Your task to perform on an android device: open wifi settings Image 0: 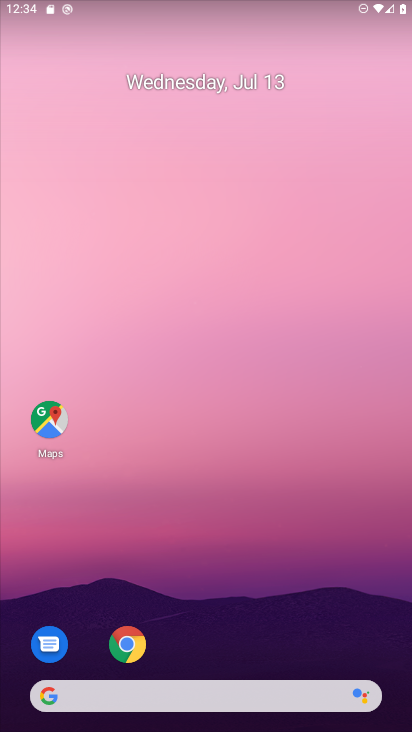
Step 0: drag from (344, 728) to (204, 261)
Your task to perform on an android device: open wifi settings Image 1: 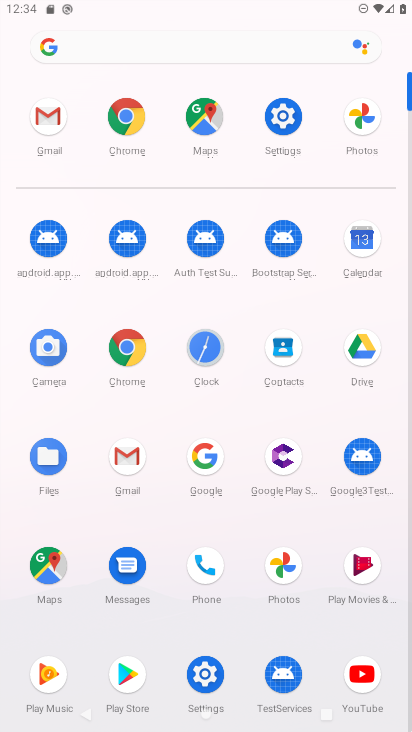
Step 1: click (274, 123)
Your task to perform on an android device: open wifi settings Image 2: 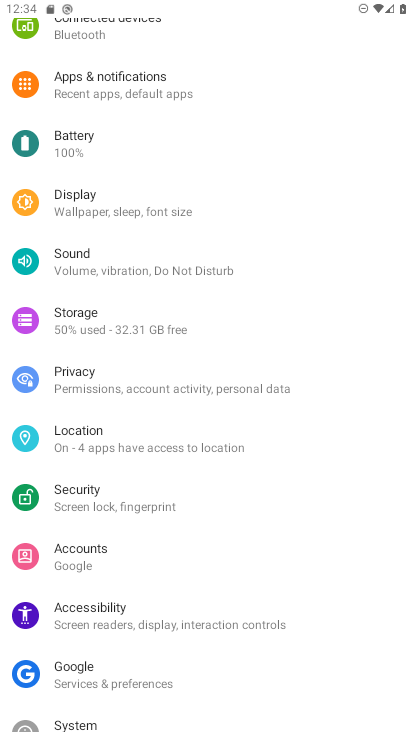
Step 2: drag from (254, 243) to (306, 731)
Your task to perform on an android device: open wifi settings Image 3: 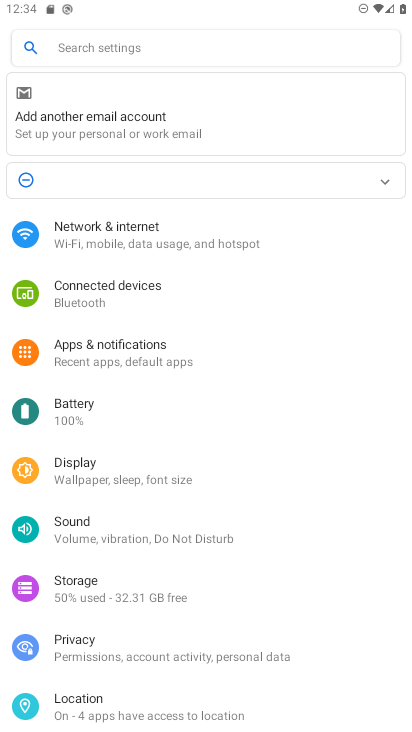
Step 3: click (120, 257)
Your task to perform on an android device: open wifi settings Image 4: 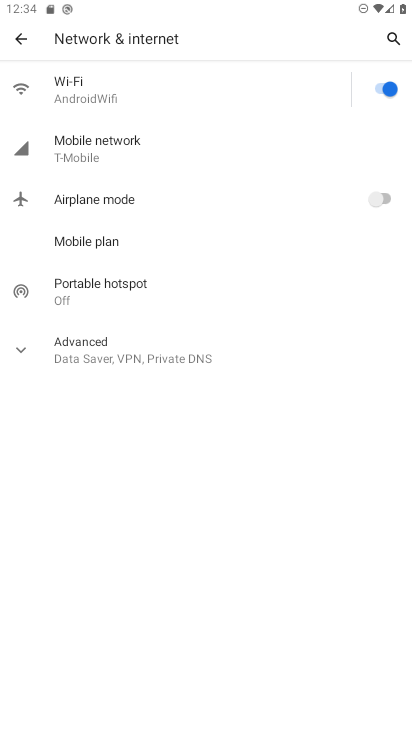
Step 4: click (119, 93)
Your task to perform on an android device: open wifi settings Image 5: 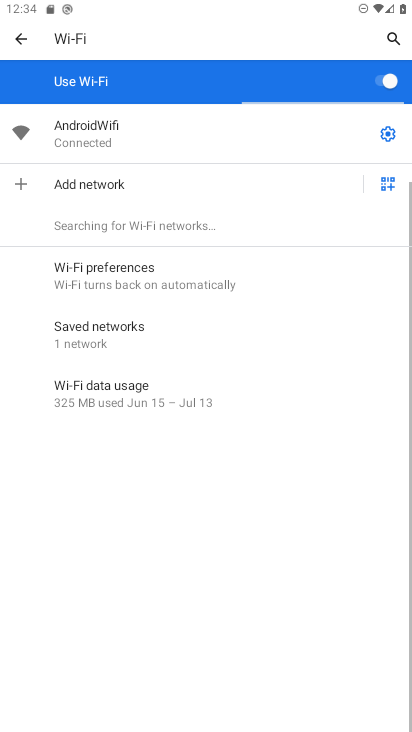
Step 5: click (390, 130)
Your task to perform on an android device: open wifi settings Image 6: 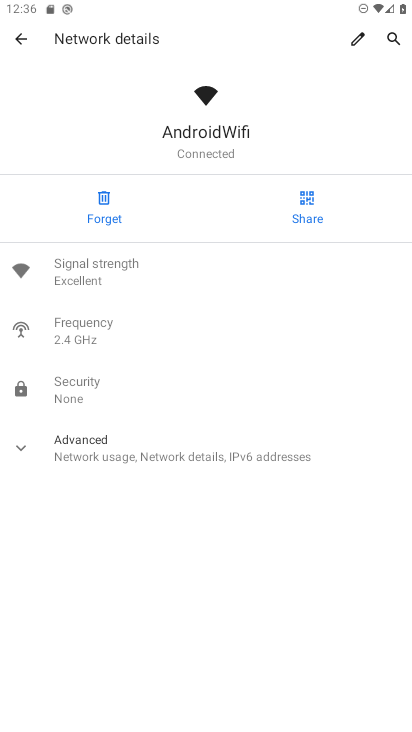
Step 6: task complete